Your task to perform on an android device: Set the phone to "Do not disturb". Image 0: 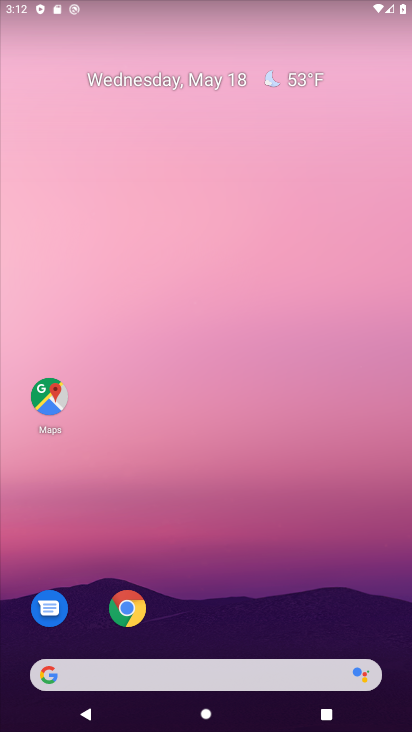
Step 0: drag from (213, 641) to (286, 278)
Your task to perform on an android device: Set the phone to "Do not disturb". Image 1: 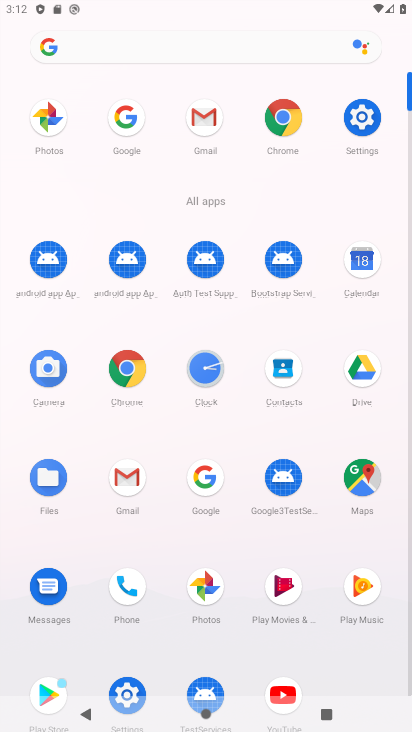
Step 1: click (386, 114)
Your task to perform on an android device: Set the phone to "Do not disturb". Image 2: 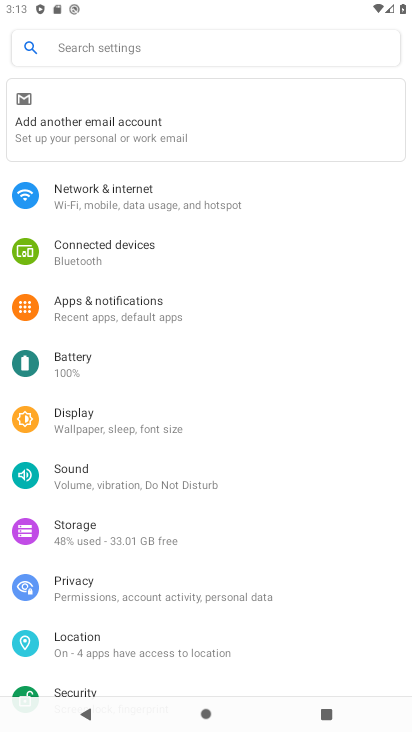
Step 2: click (150, 484)
Your task to perform on an android device: Set the phone to "Do not disturb". Image 3: 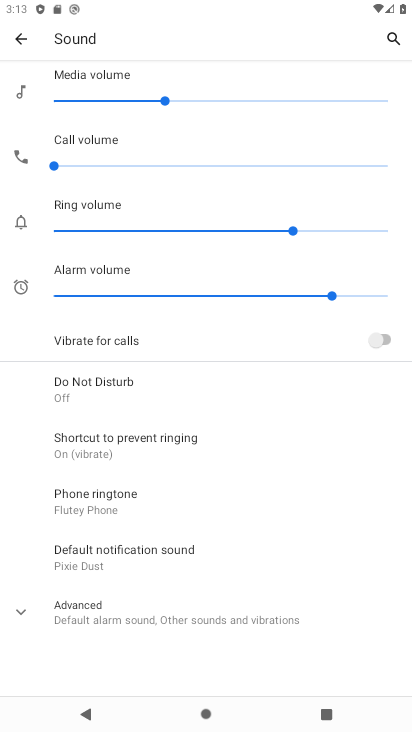
Step 3: click (116, 381)
Your task to perform on an android device: Set the phone to "Do not disturb". Image 4: 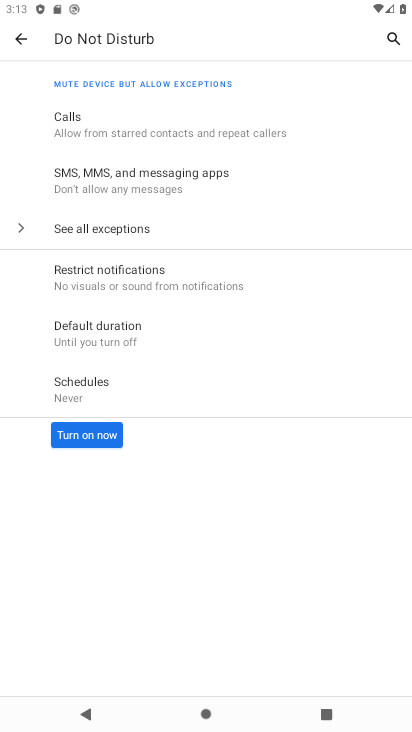
Step 4: click (102, 434)
Your task to perform on an android device: Set the phone to "Do not disturb". Image 5: 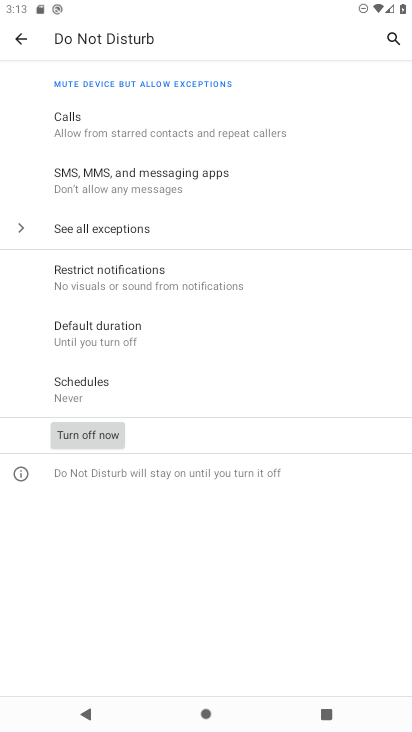
Step 5: task complete